Your task to perform on an android device: delete the emails in spam in the gmail app Image 0: 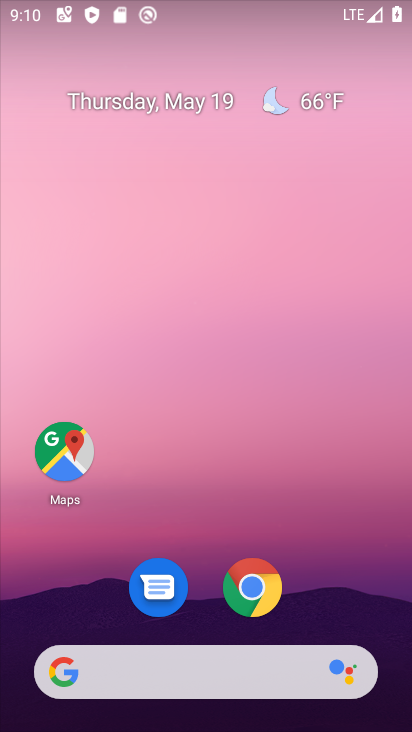
Step 0: drag from (259, 716) to (207, 149)
Your task to perform on an android device: delete the emails in spam in the gmail app Image 1: 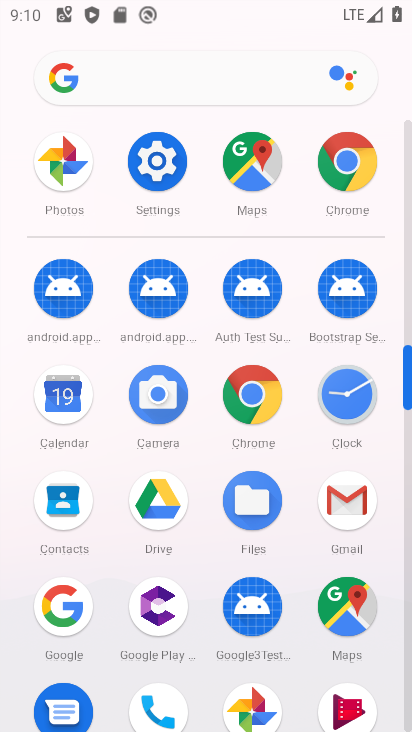
Step 1: click (339, 169)
Your task to perform on an android device: delete the emails in spam in the gmail app Image 2: 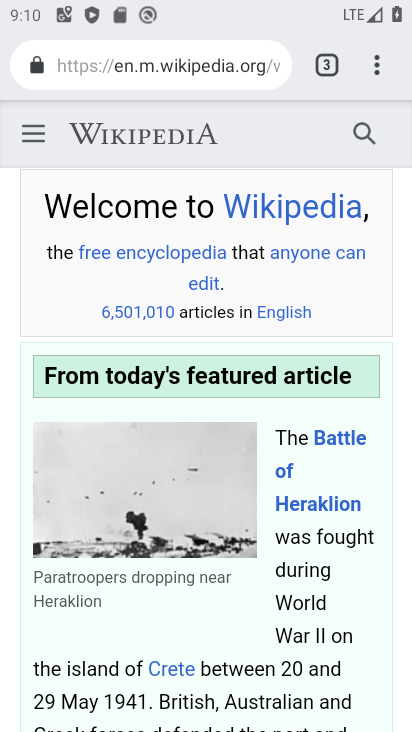
Step 2: press home button
Your task to perform on an android device: delete the emails in spam in the gmail app Image 3: 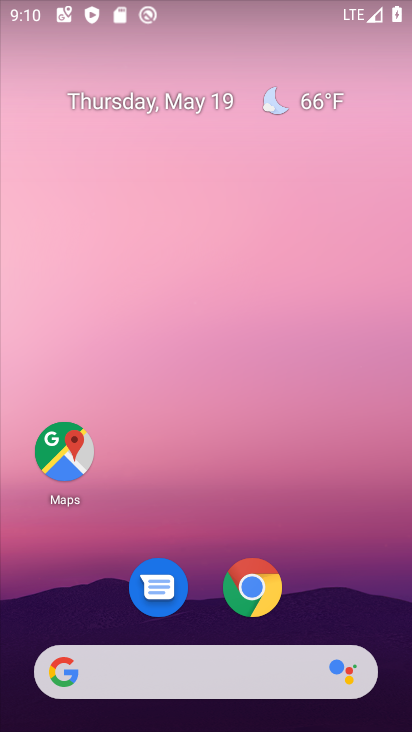
Step 3: drag from (273, 671) to (216, 225)
Your task to perform on an android device: delete the emails in spam in the gmail app Image 4: 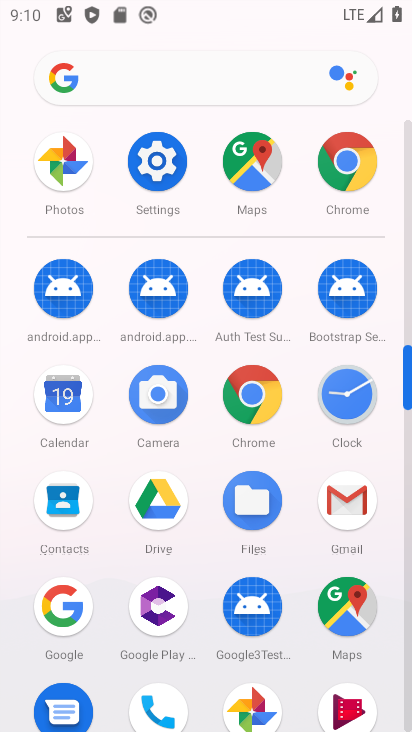
Step 4: click (347, 496)
Your task to perform on an android device: delete the emails in spam in the gmail app Image 5: 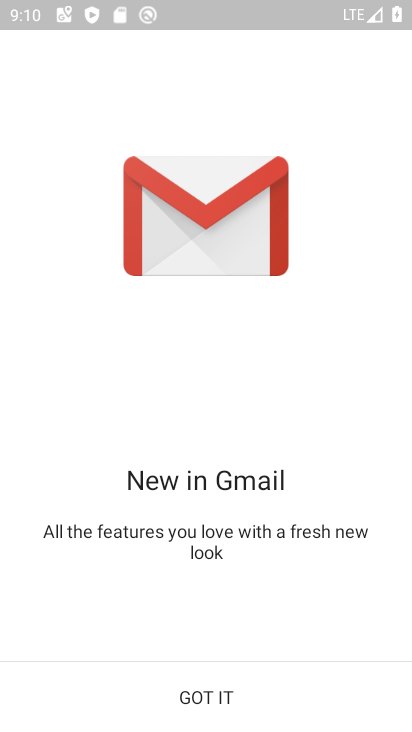
Step 5: click (239, 691)
Your task to perform on an android device: delete the emails in spam in the gmail app Image 6: 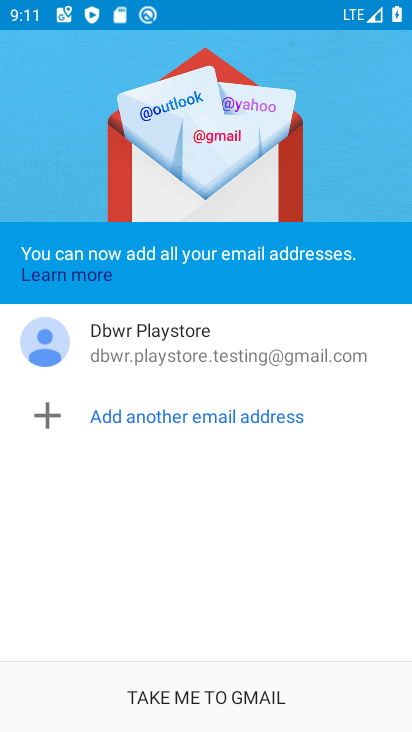
Step 6: click (244, 704)
Your task to perform on an android device: delete the emails in spam in the gmail app Image 7: 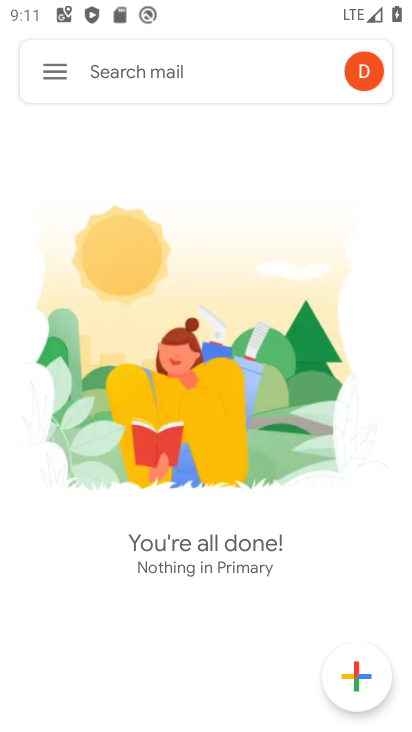
Step 7: click (70, 76)
Your task to perform on an android device: delete the emails in spam in the gmail app Image 8: 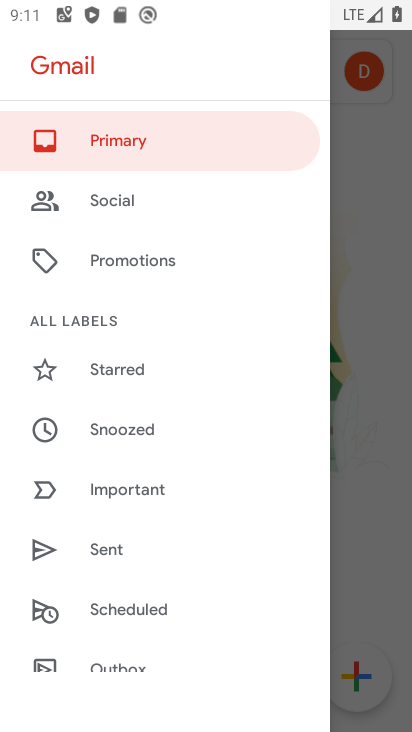
Step 8: drag from (137, 541) to (172, 308)
Your task to perform on an android device: delete the emails in spam in the gmail app Image 9: 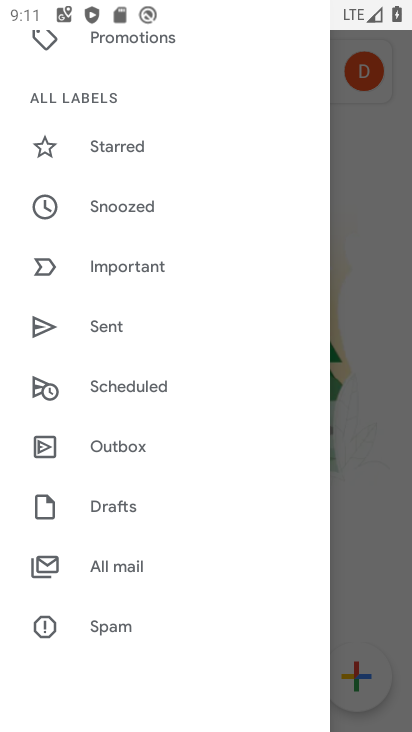
Step 9: click (139, 621)
Your task to perform on an android device: delete the emails in spam in the gmail app Image 10: 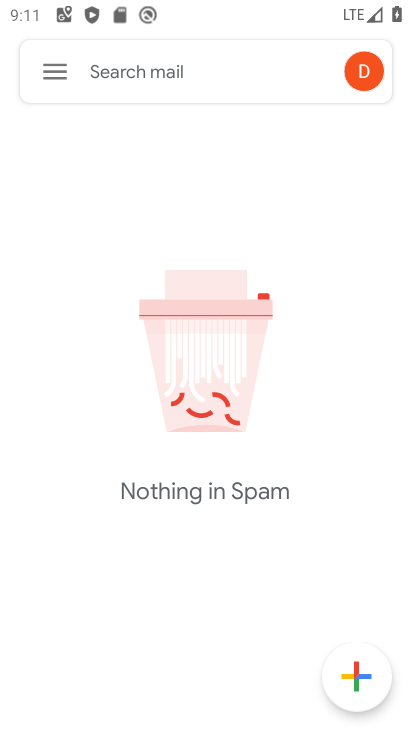
Step 10: task complete